Your task to perform on an android device: What's the news in Myanmar? Image 0: 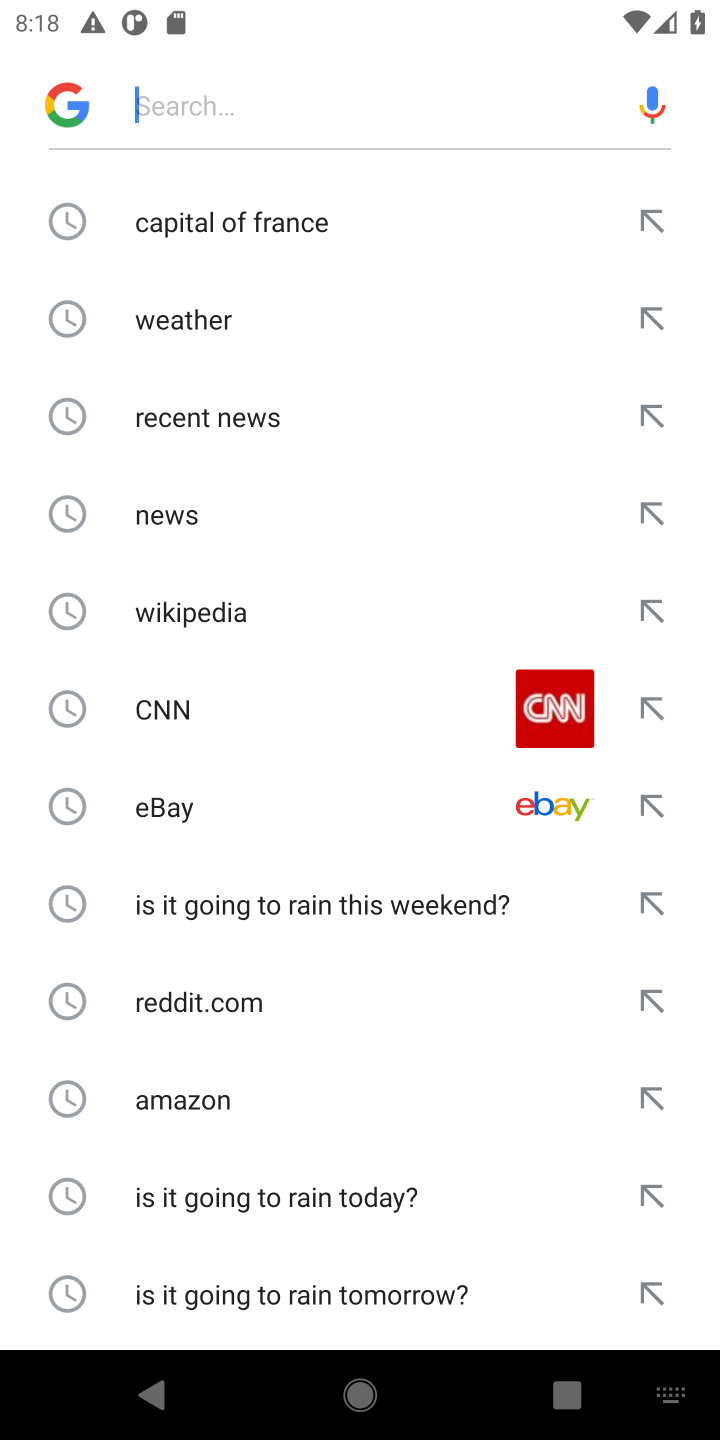
Step 0: type "What's the news in Myanmar?"
Your task to perform on an android device: What's the news in Myanmar? Image 1: 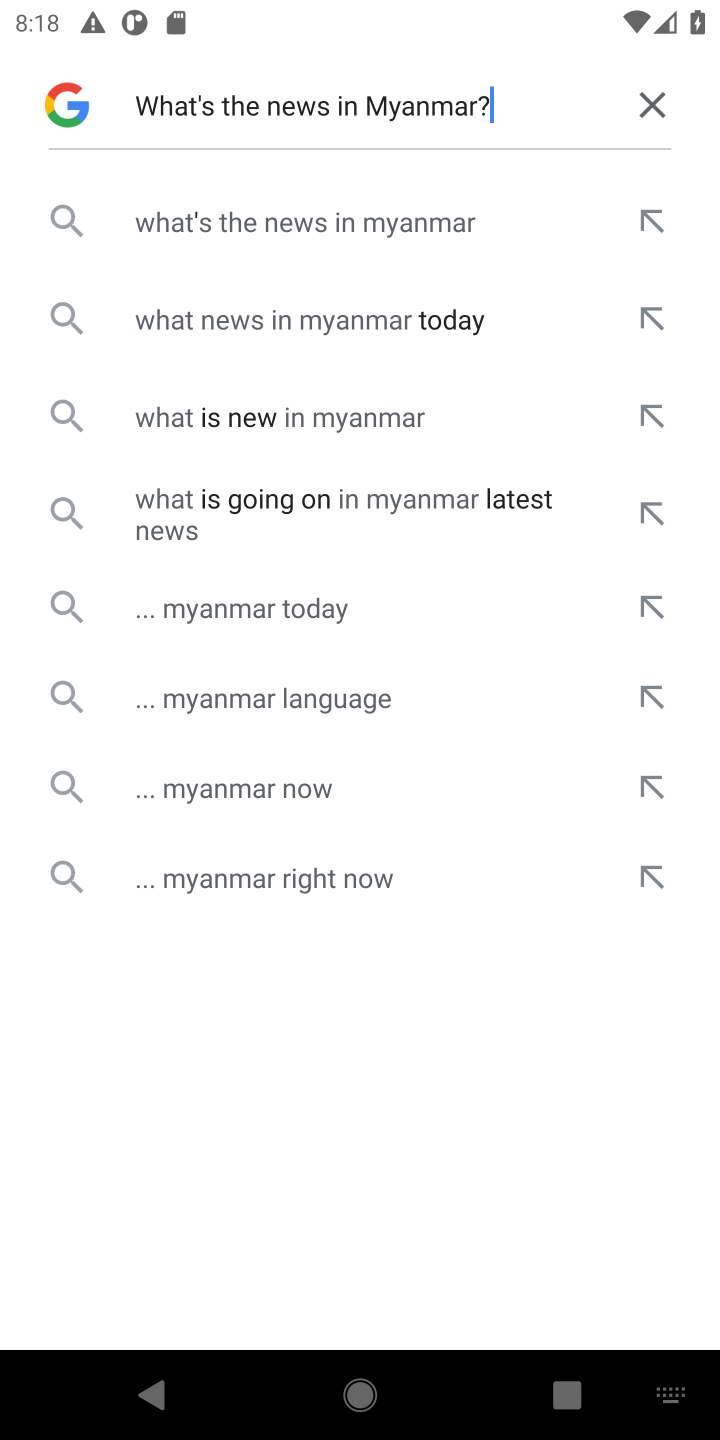
Step 1: click (398, 238)
Your task to perform on an android device: What's the news in Myanmar? Image 2: 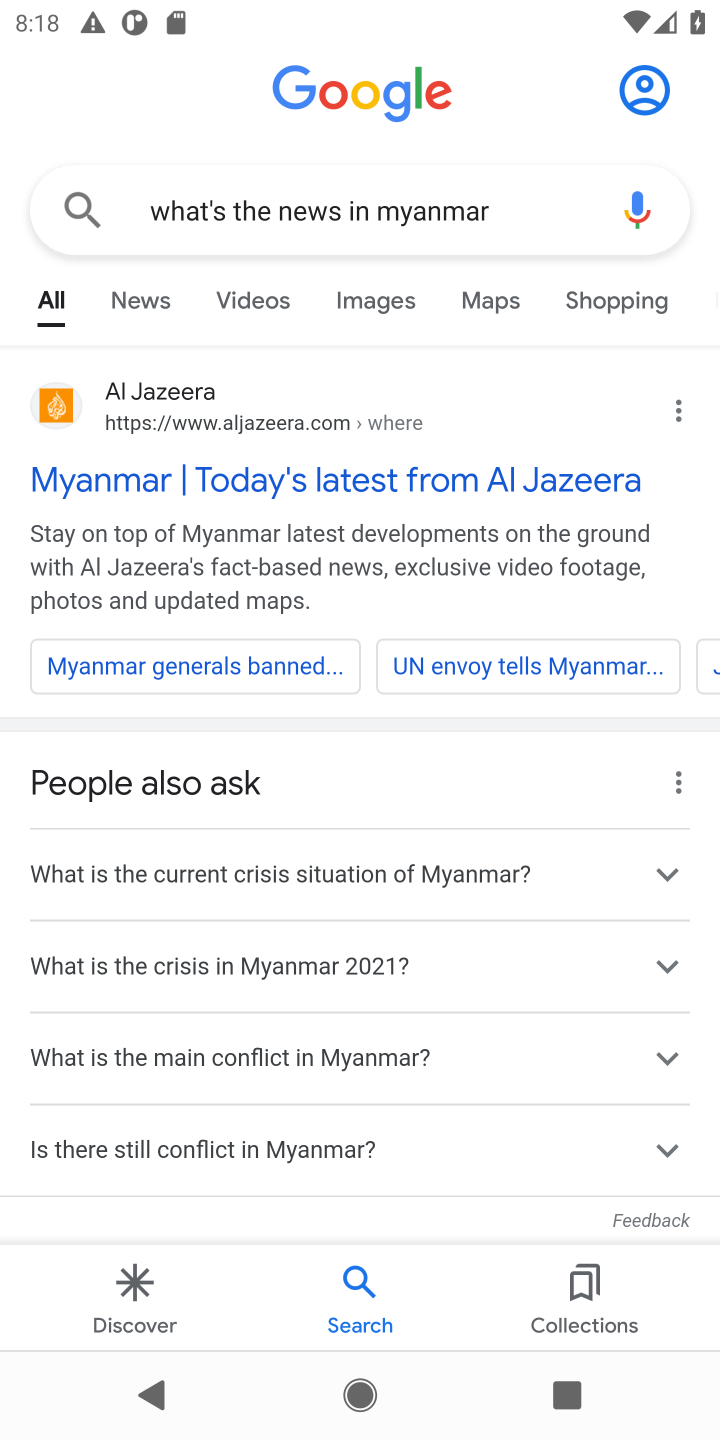
Step 2: click (375, 495)
Your task to perform on an android device: What's the news in Myanmar? Image 3: 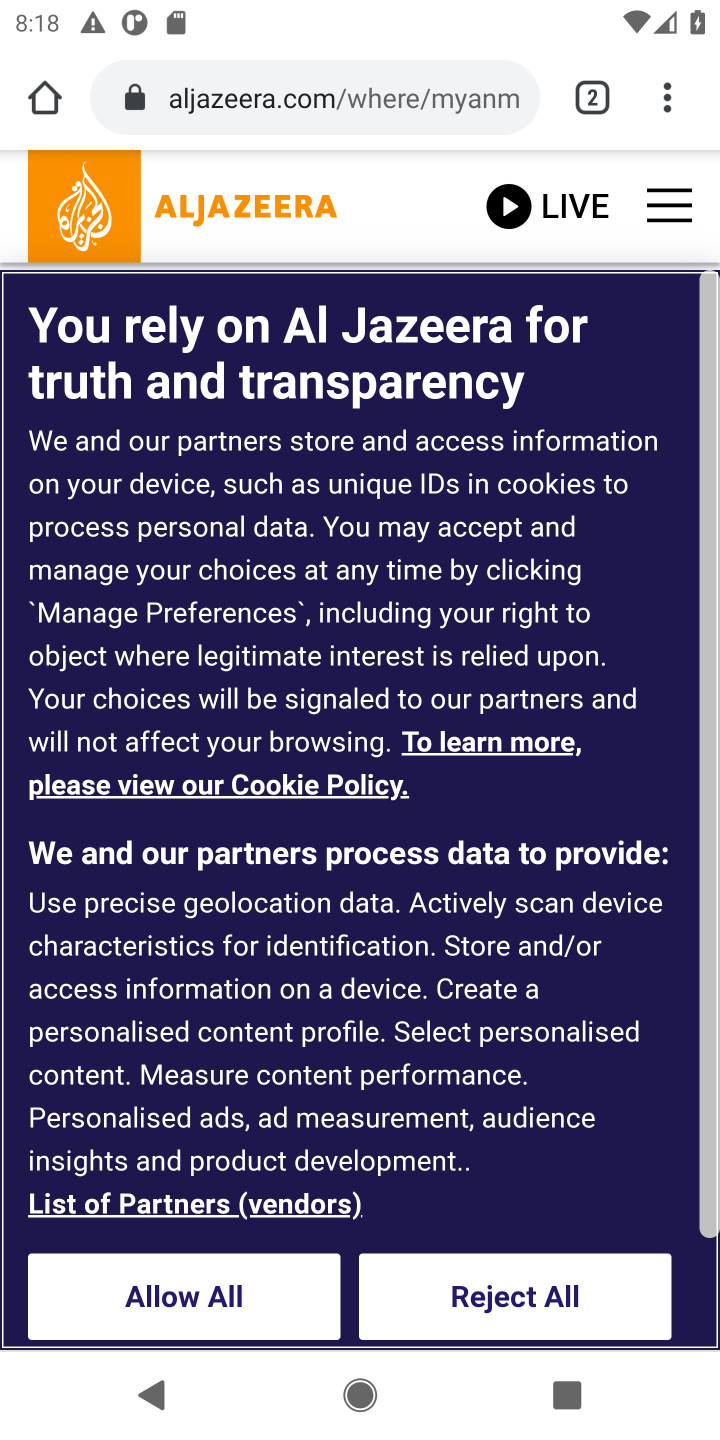
Step 3: click (280, 1305)
Your task to perform on an android device: What's the news in Myanmar? Image 4: 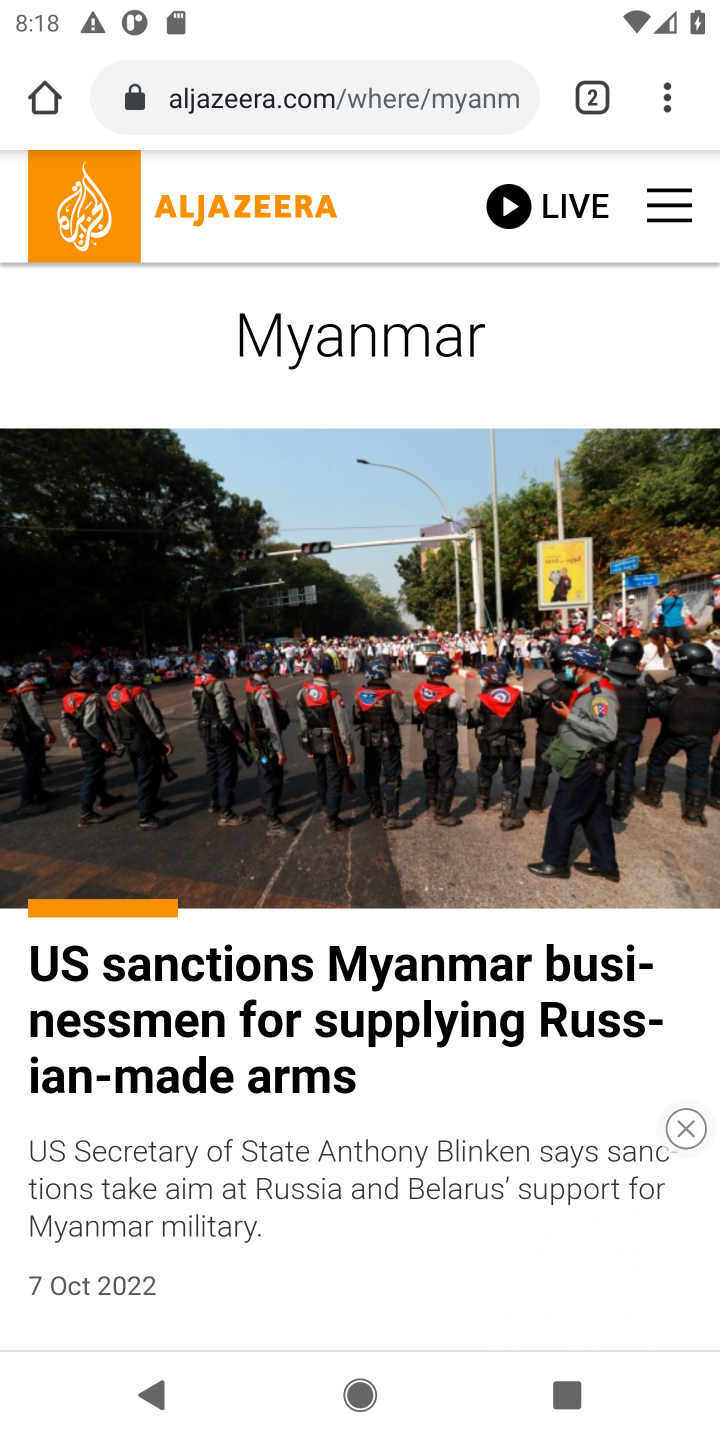
Step 4: task complete